Your task to perform on an android device: toggle airplane mode Image 0: 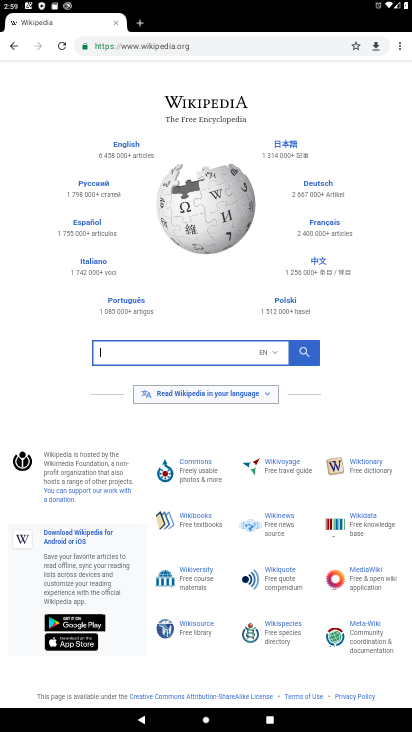
Step 0: drag from (254, 13) to (358, 412)
Your task to perform on an android device: toggle airplane mode Image 1: 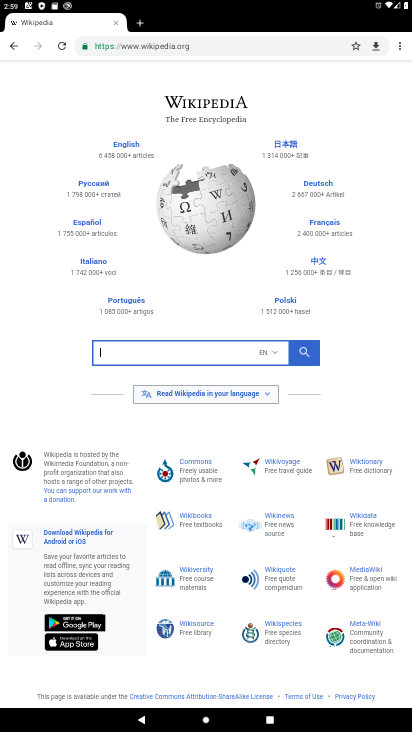
Step 1: press home button
Your task to perform on an android device: toggle airplane mode Image 2: 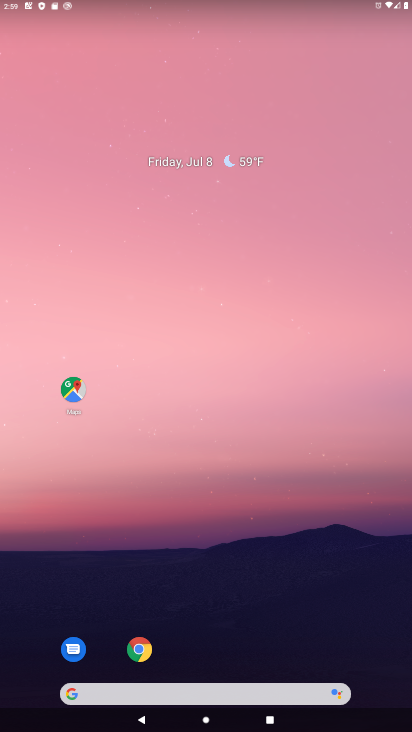
Step 2: drag from (285, 3) to (317, 360)
Your task to perform on an android device: toggle airplane mode Image 3: 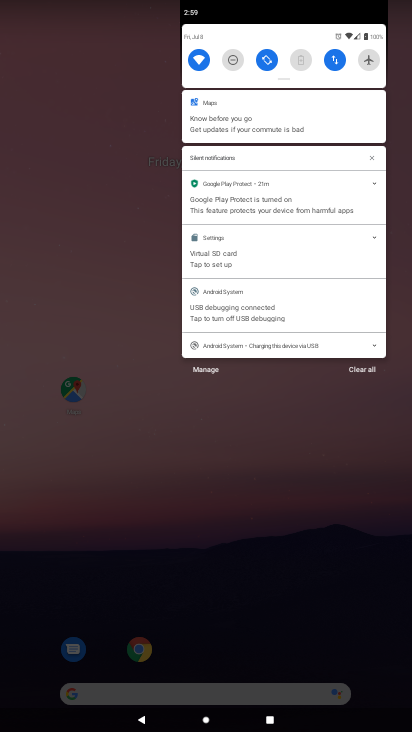
Step 3: click (371, 63)
Your task to perform on an android device: toggle airplane mode Image 4: 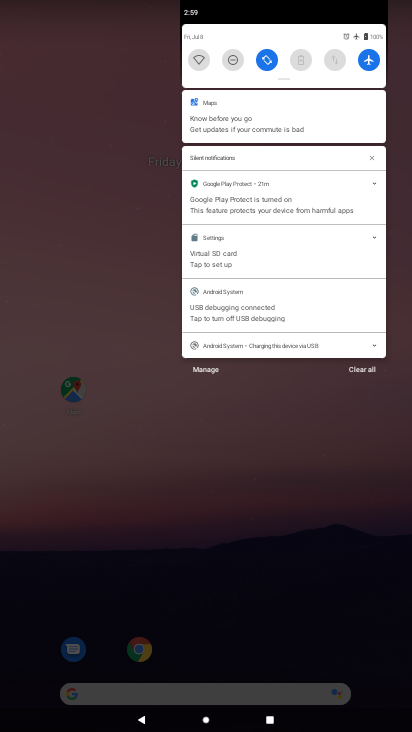
Step 4: task complete